Your task to perform on an android device: turn notification dots on Image 0: 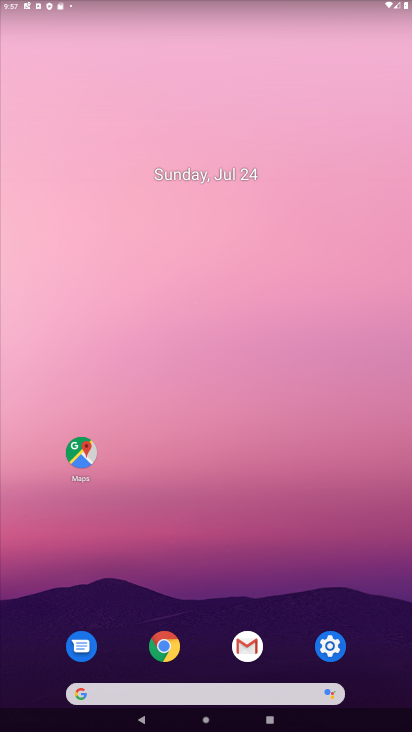
Step 0: click (333, 642)
Your task to perform on an android device: turn notification dots on Image 1: 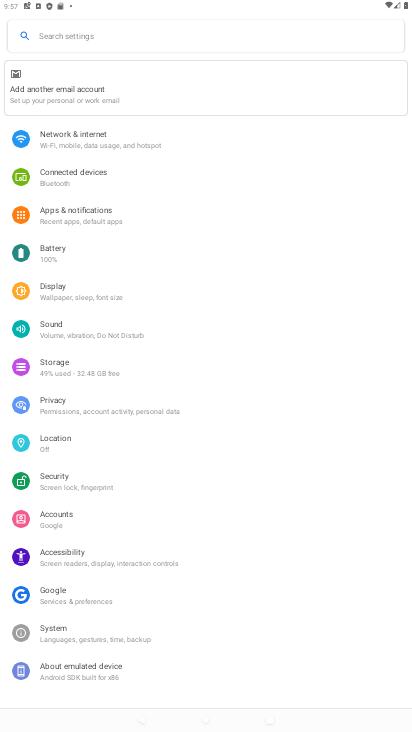
Step 1: click (88, 44)
Your task to perform on an android device: turn notification dots on Image 2: 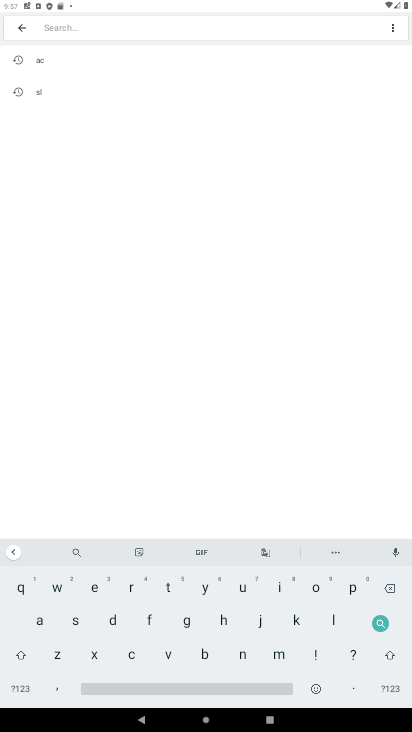
Step 2: click (242, 675)
Your task to perform on an android device: turn notification dots on Image 3: 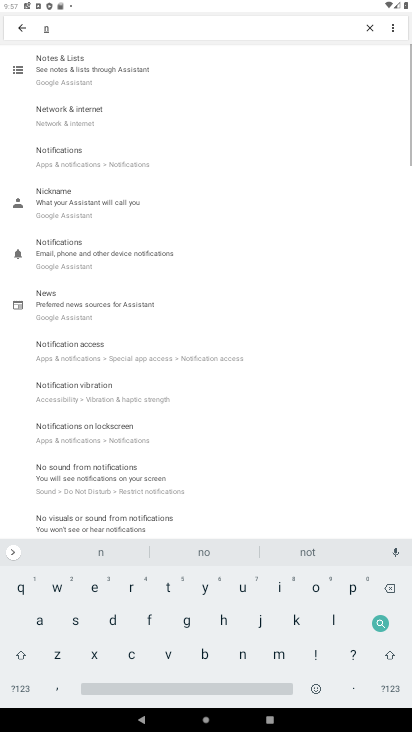
Step 3: click (311, 590)
Your task to perform on an android device: turn notification dots on Image 4: 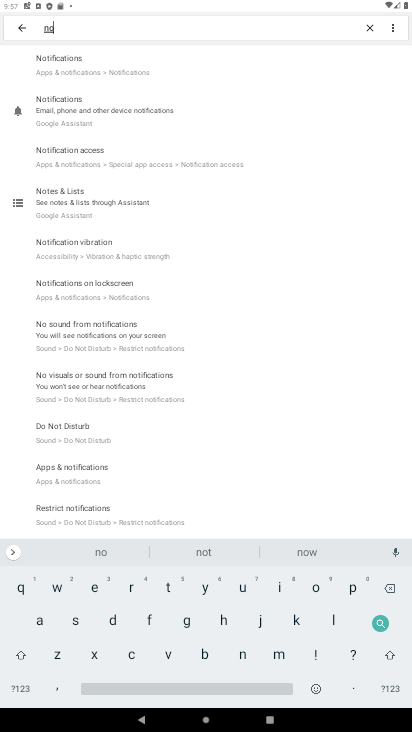
Step 4: click (77, 67)
Your task to perform on an android device: turn notification dots on Image 5: 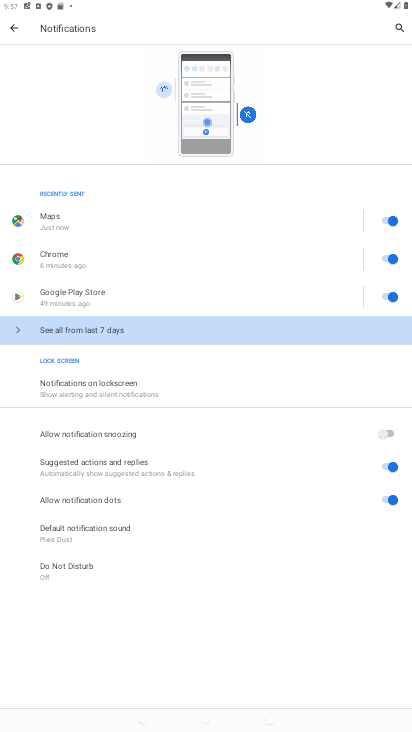
Step 5: click (199, 485)
Your task to perform on an android device: turn notification dots on Image 6: 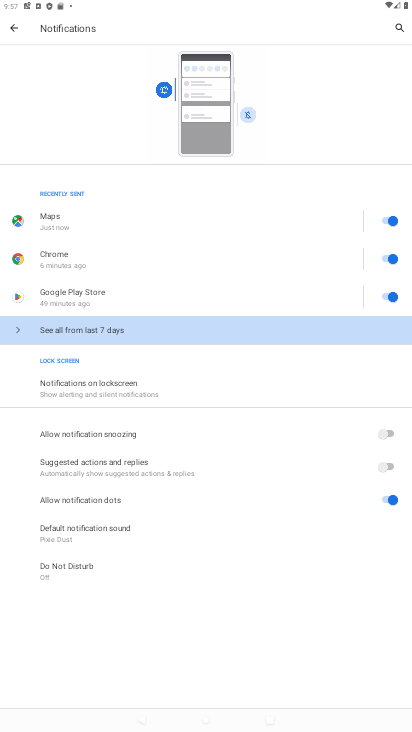
Step 6: click (199, 500)
Your task to perform on an android device: turn notification dots on Image 7: 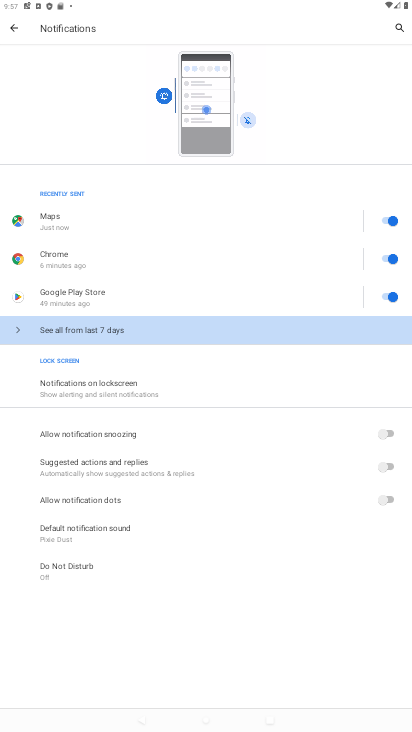
Step 7: click (199, 500)
Your task to perform on an android device: turn notification dots on Image 8: 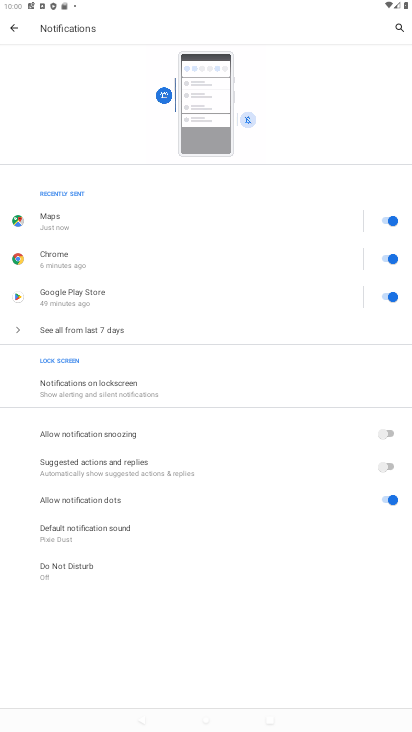
Step 8: task complete